Your task to perform on an android device: turn off wifi Image 0: 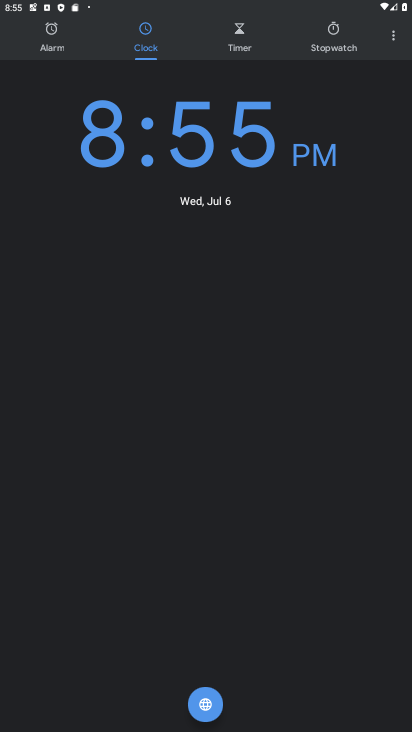
Step 0: drag from (175, 390) to (180, 606)
Your task to perform on an android device: turn off wifi Image 1: 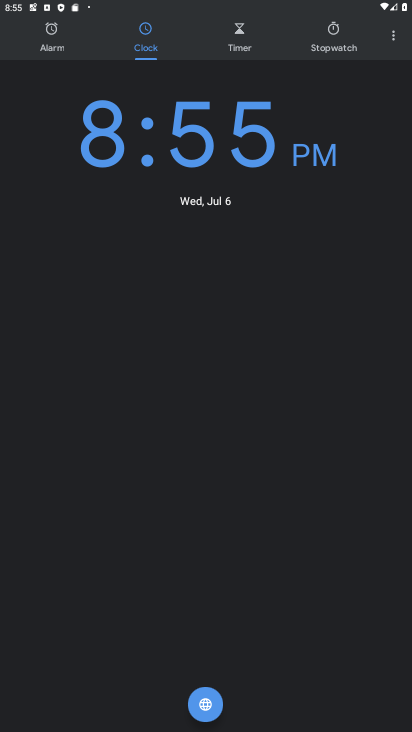
Step 1: drag from (117, 11) to (128, 474)
Your task to perform on an android device: turn off wifi Image 2: 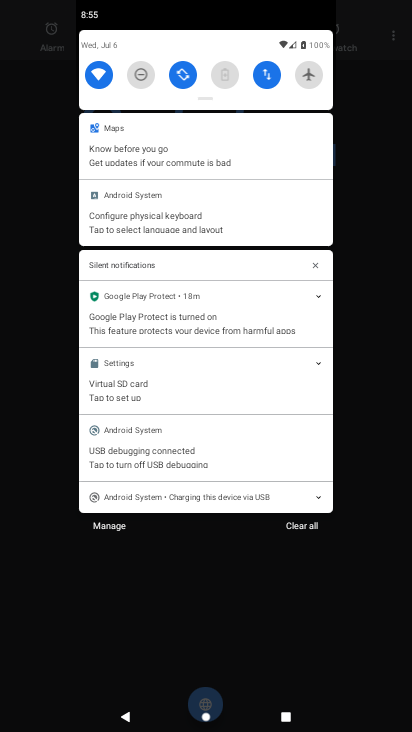
Step 2: click (95, 70)
Your task to perform on an android device: turn off wifi Image 3: 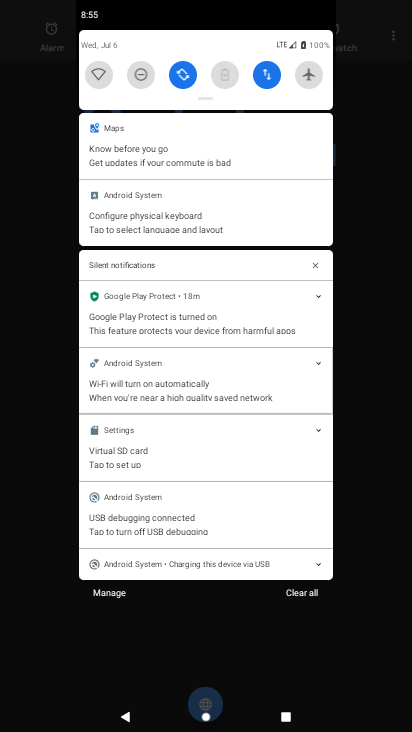
Step 3: task complete